Your task to perform on an android device: change alarm snooze length Image 0: 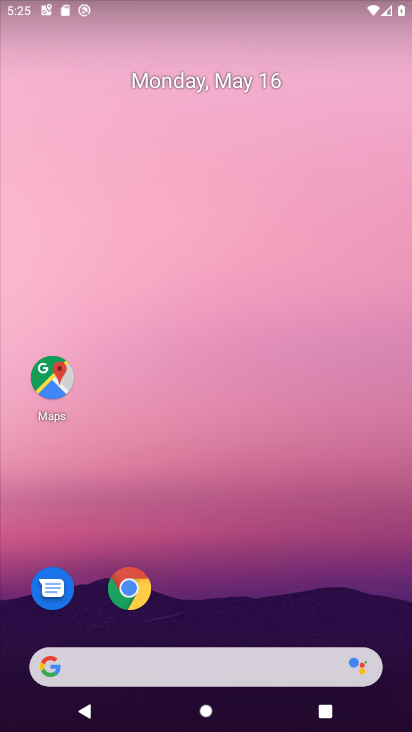
Step 0: click (54, 379)
Your task to perform on an android device: change alarm snooze length Image 1: 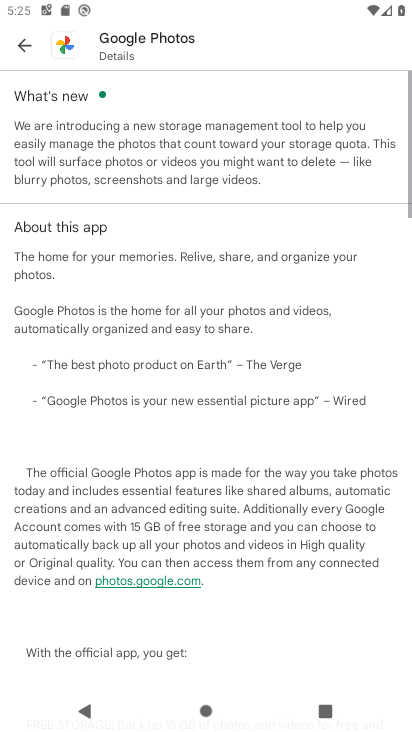
Step 1: click (22, 46)
Your task to perform on an android device: change alarm snooze length Image 2: 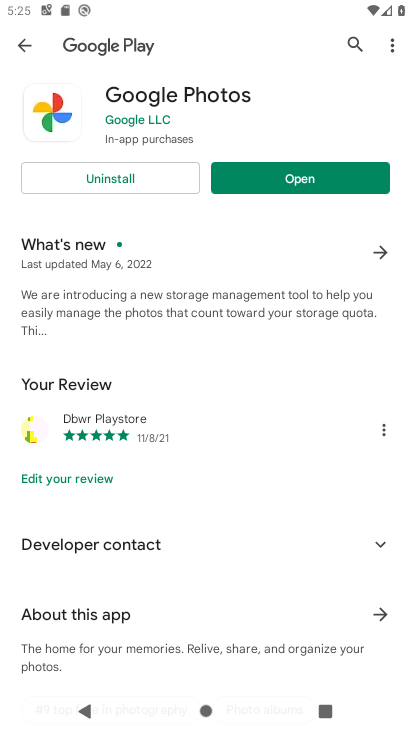
Step 2: press home button
Your task to perform on an android device: change alarm snooze length Image 3: 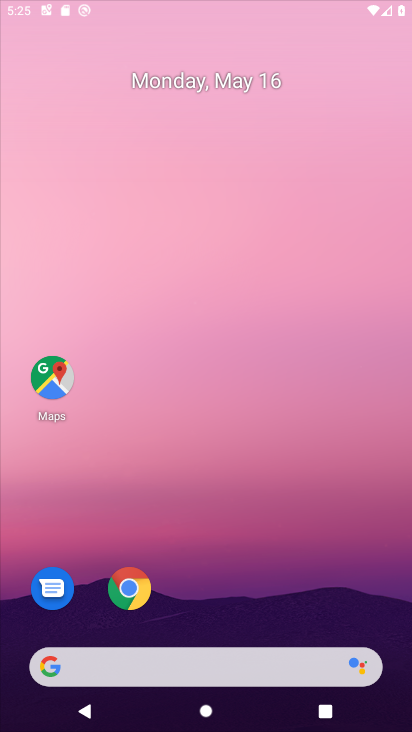
Step 3: drag from (255, 495) to (222, 144)
Your task to perform on an android device: change alarm snooze length Image 4: 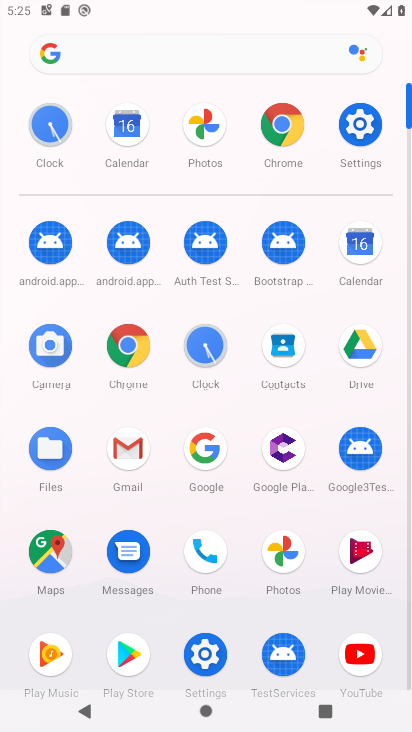
Step 4: click (203, 347)
Your task to perform on an android device: change alarm snooze length Image 5: 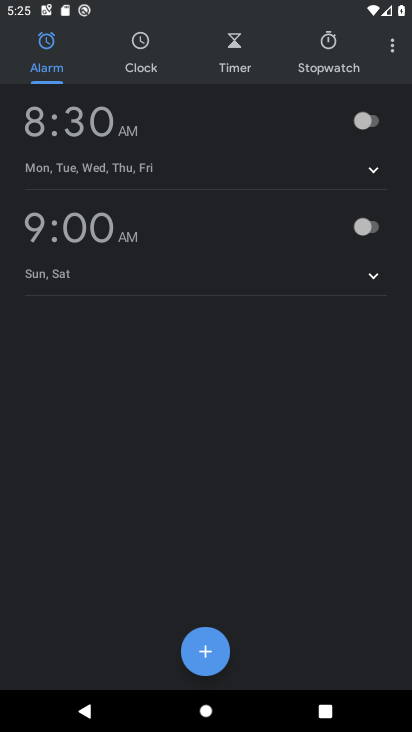
Step 5: click (395, 38)
Your task to perform on an android device: change alarm snooze length Image 6: 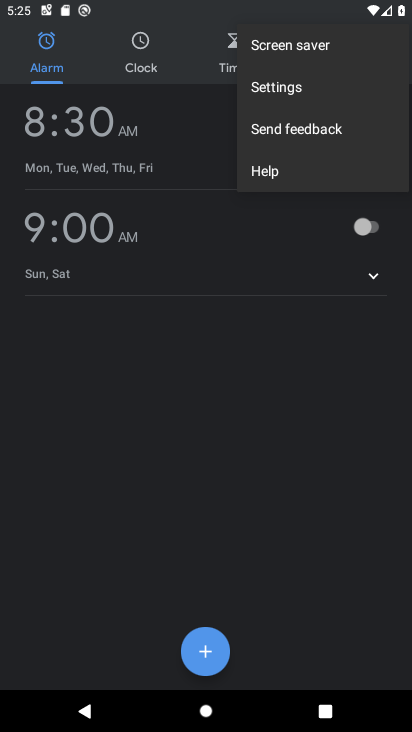
Step 6: click (282, 97)
Your task to perform on an android device: change alarm snooze length Image 7: 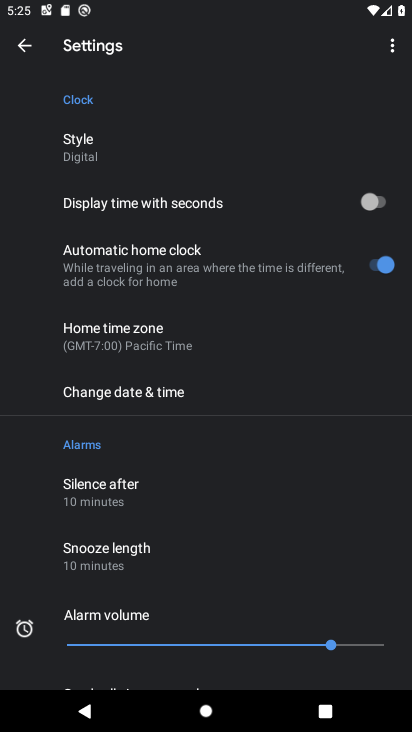
Step 7: click (194, 548)
Your task to perform on an android device: change alarm snooze length Image 8: 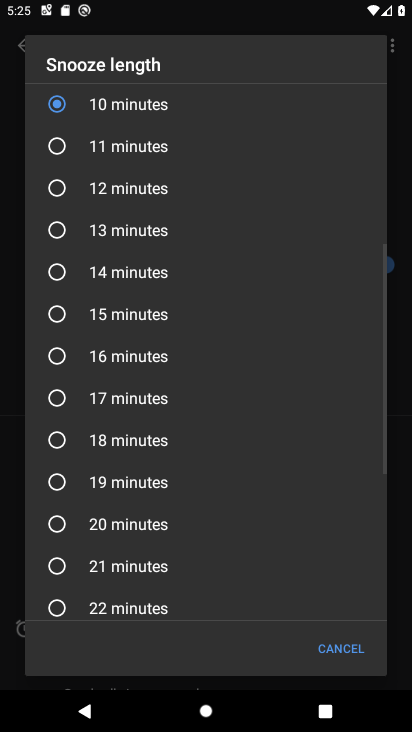
Step 8: click (148, 156)
Your task to perform on an android device: change alarm snooze length Image 9: 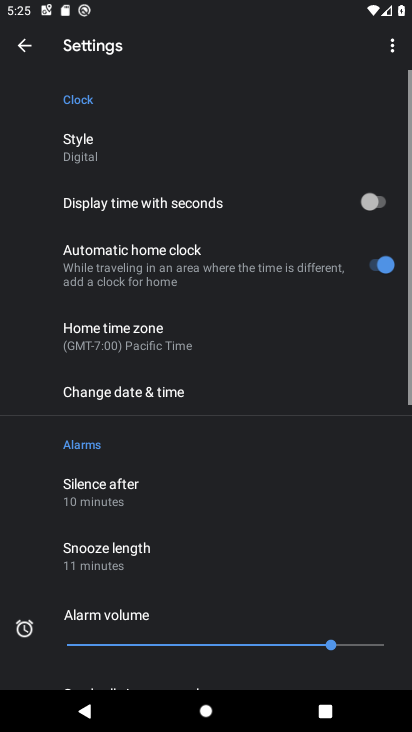
Step 9: task complete